Your task to perform on an android device: Go to Yahoo.com Image 0: 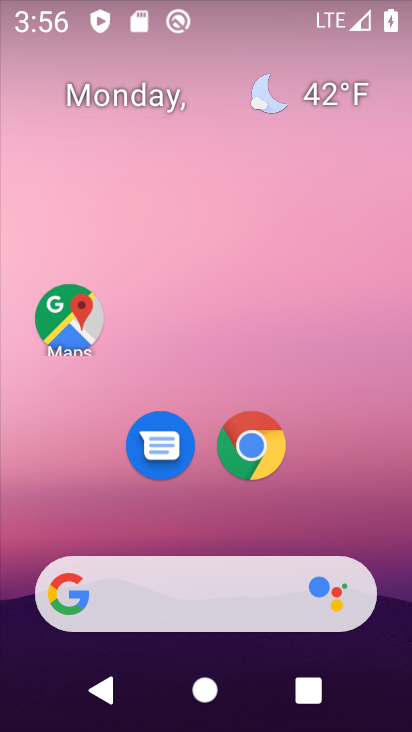
Step 0: drag from (20, 508) to (206, 59)
Your task to perform on an android device: Go to Yahoo.com Image 1: 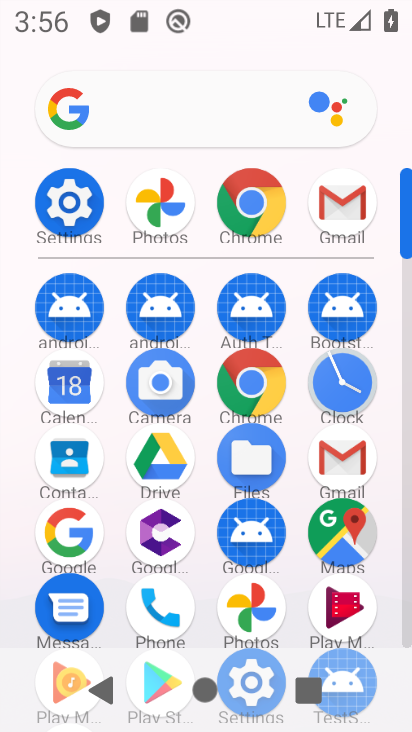
Step 1: click (245, 391)
Your task to perform on an android device: Go to Yahoo.com Image 2: 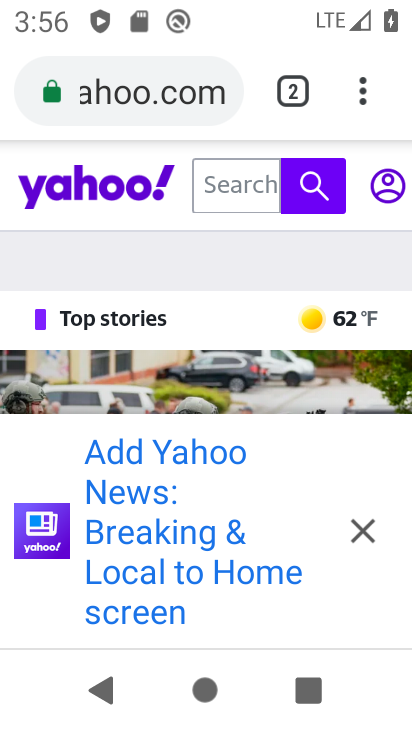
Step 2: task complete